Your task to perform on an android device: open the mobile data screen to see how much data has been used Image 0: 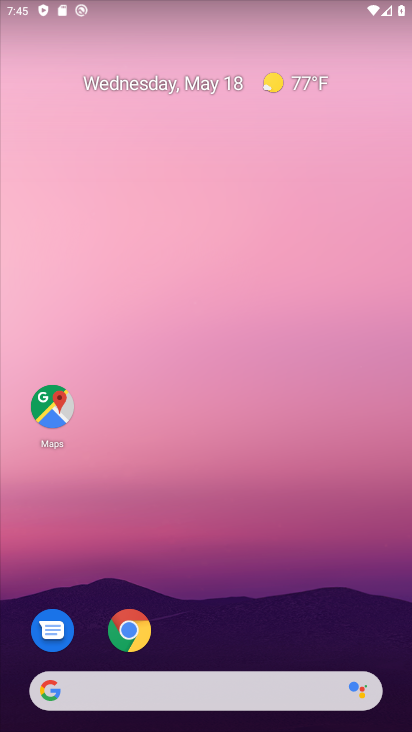
Step 0: drag from (306, 616) to (351, 218)
Your task to perform on an android device: open the mobile data screen to see how much data has been used Image 1: 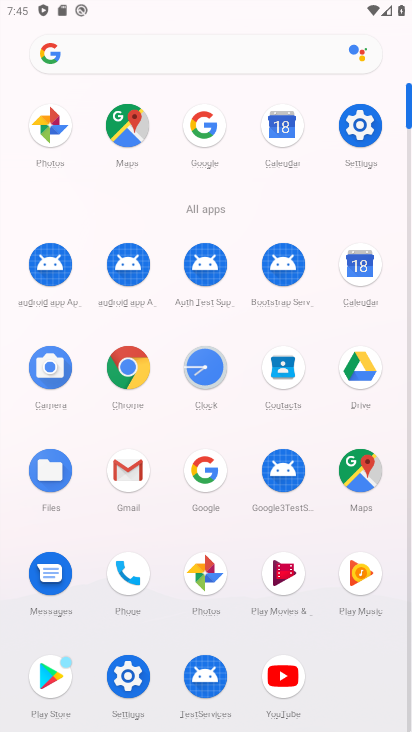
Step 1: click (364, 127)
Your task to perform on an android device: open the mobile data screen to see how much data has been used Image 2: 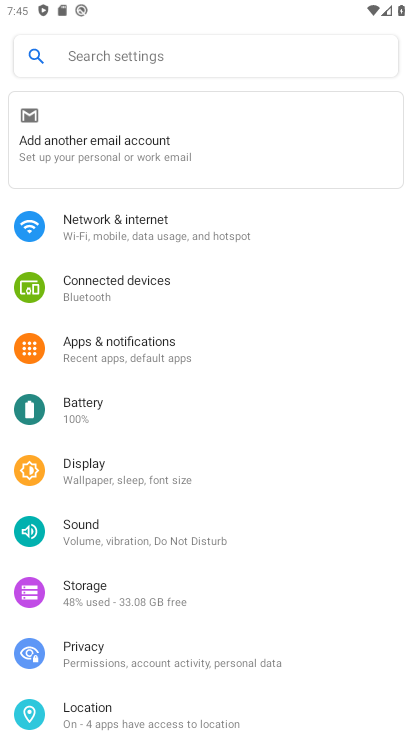
Step 2: click (224, 241)
Your task to perform on an android device: open the mobile data screen to see how much data has been used Image 3: 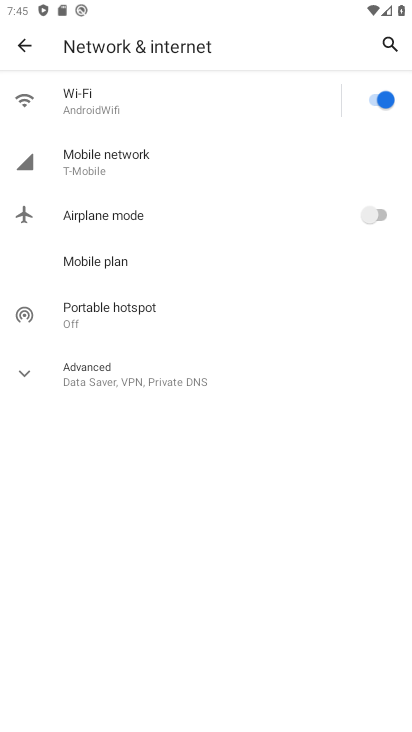
Step 3: click (161, 172)
Your task to perform on an android device: open the mobile data screen to see how much data has been used Image 4: 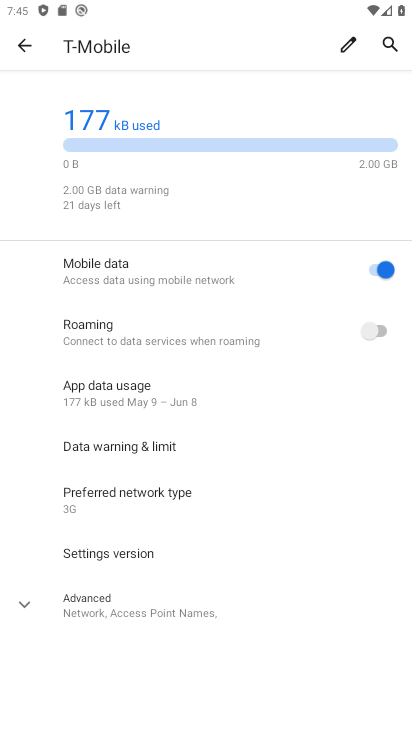
Step 4: click (149, 398)
Your task to perform on an android device: open the mobile data screen to see how much data has been used Image 5: 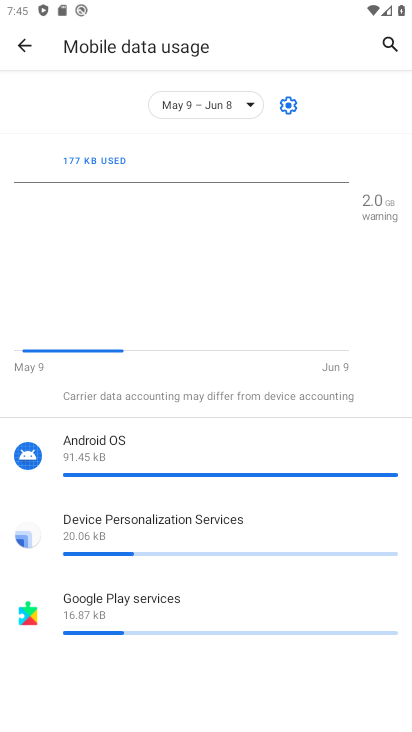
Step 5: task complete